Your task to perform on an android device: delete location history Image 0: 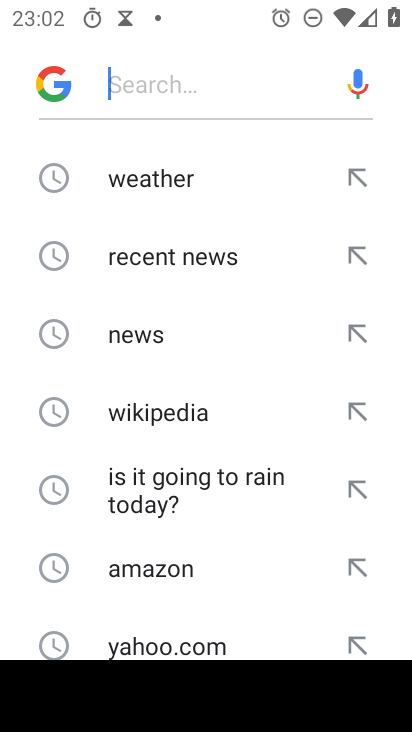
Step 0: press home button
Your task to perform on an android device: delete location history Image 1: 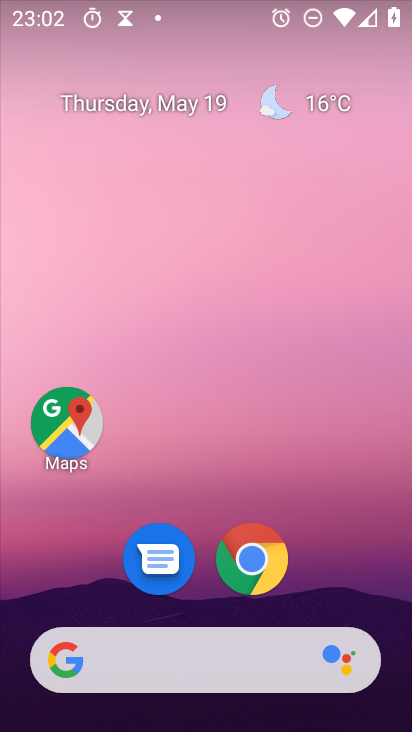
Step 1: drag from (233, 714) to (217, 155)
Your task to perform on an android device: delete location history Image 2: 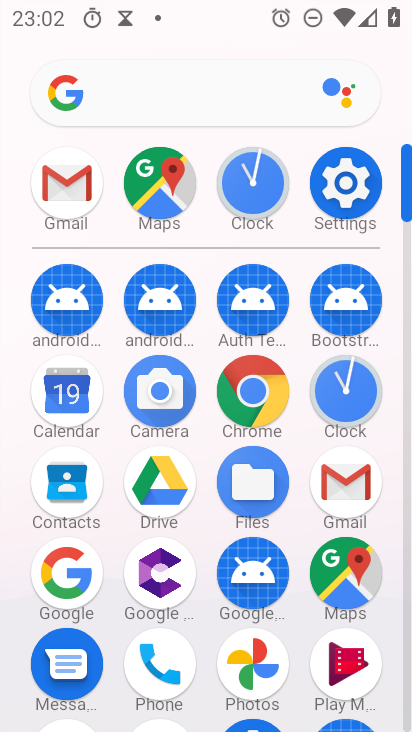
Step 2: click (334, 585)
Your task to perform on an android device: delete location history Image 3: 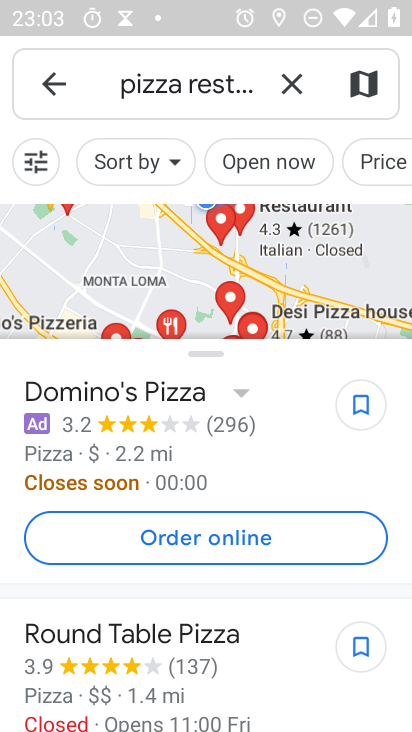
Step 3: click (48, 80)
Your task to perform on an android device: delete location history Image 4: 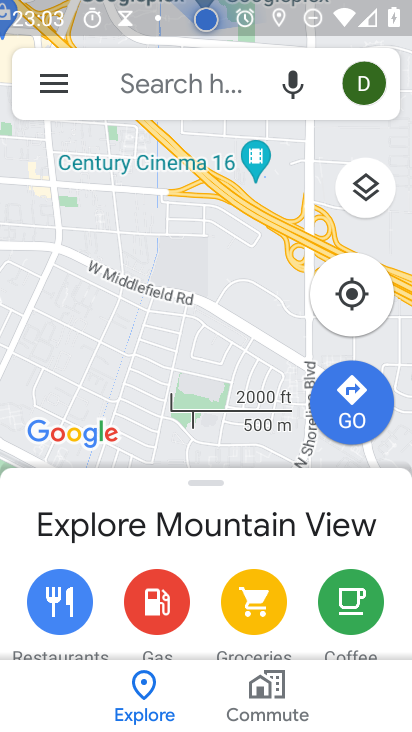
Step 4: click (56, 78)
Your task to perform on an android device: delete location history Image 5: 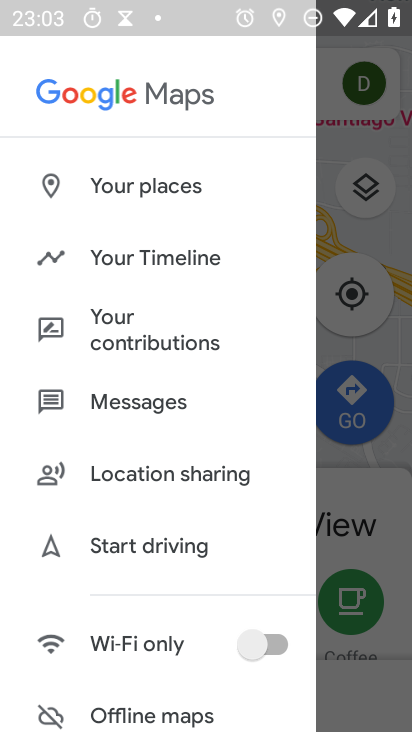
Step 5: drag from (135, 673) to (140, 575)
Your task to perform on an android device: delete location history Image 6: 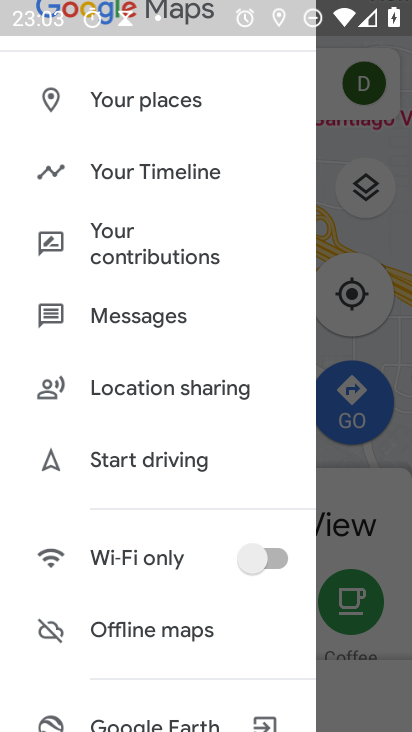
Step 6: click (130, 166)
Your task to perform on an android device: delete location history Image 7: 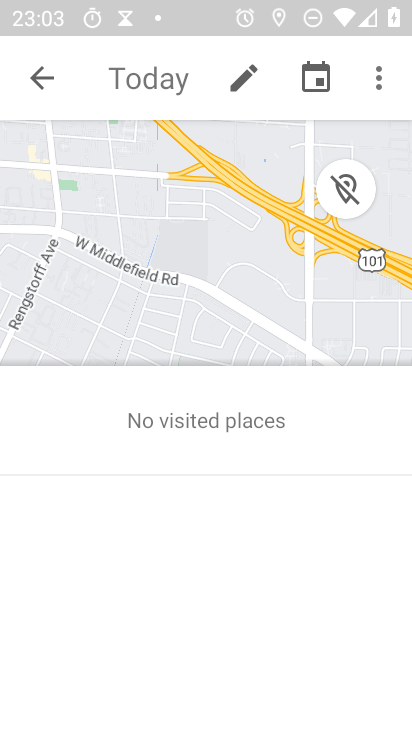
Step 7: click (380, 85)
Your task to perform on an android device: delete location history Image 8: 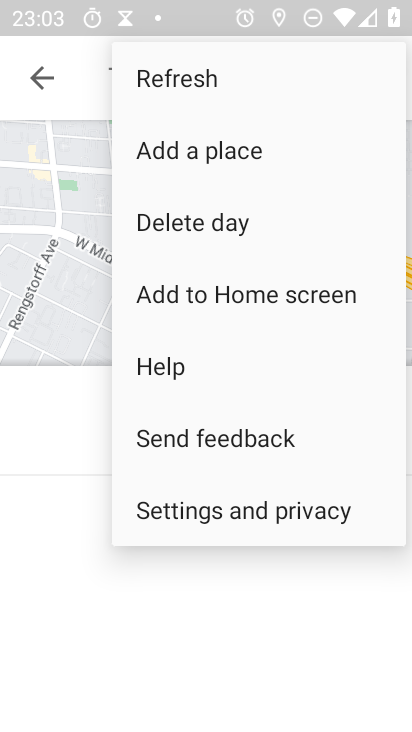
Step 8: click (201, 506)
Your task to perform on an android device: delete location history Image 9: 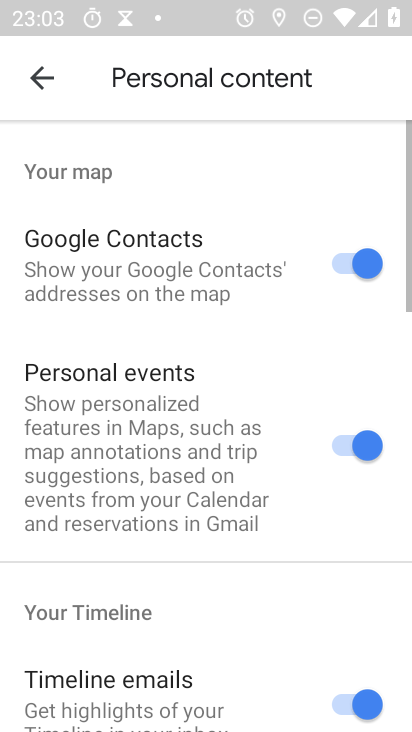
Step 9: drag from (168, 665) to (157, 285)
Your task to perform on an android device: delete location history Image 10: 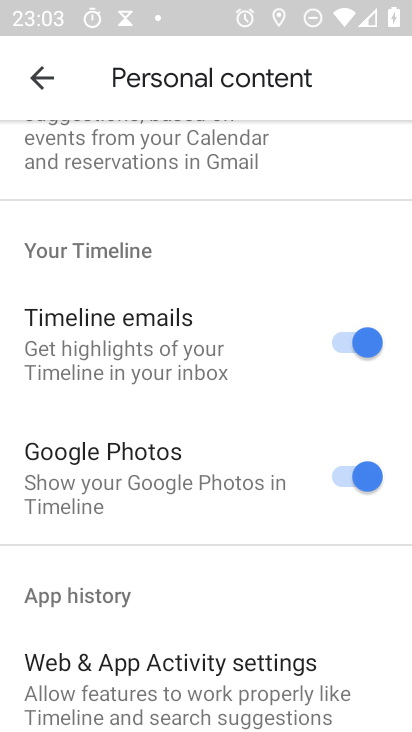
Step 10: drag from (164, 701) to (162, 293)
Your task to perform on an android device: delete location history Image 11: 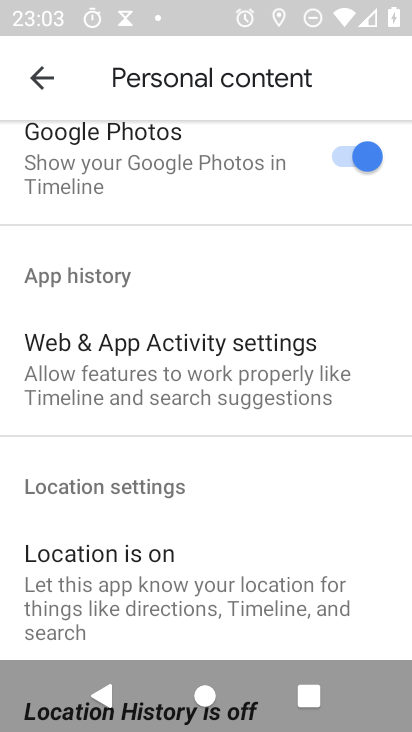
Step 11: drag from (228, 650) to (196, 229)
Your task to perform on an android device: delete location history Image 12: 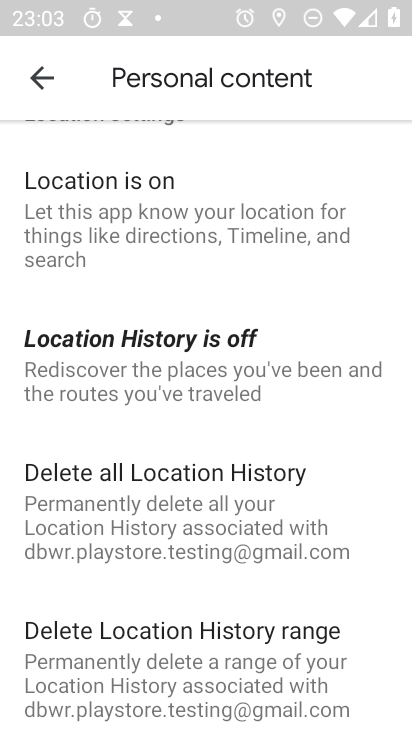
Step 12: click (181, 502)
Your task to perform on an android device: delete location history Image 13: 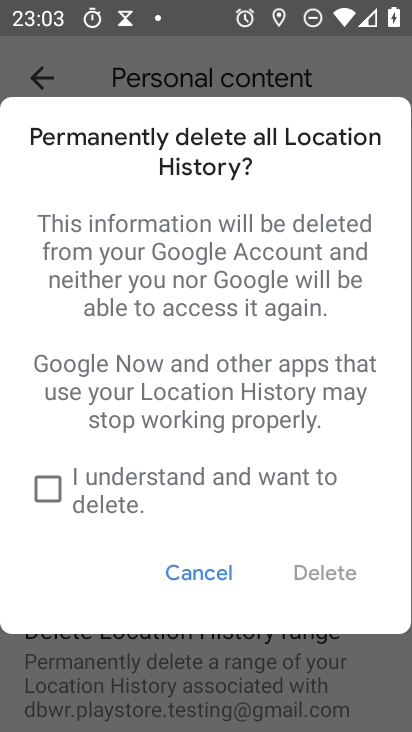
Step 13: click (45, 484)
Your task to perform on an android device: delete location history Image 14: 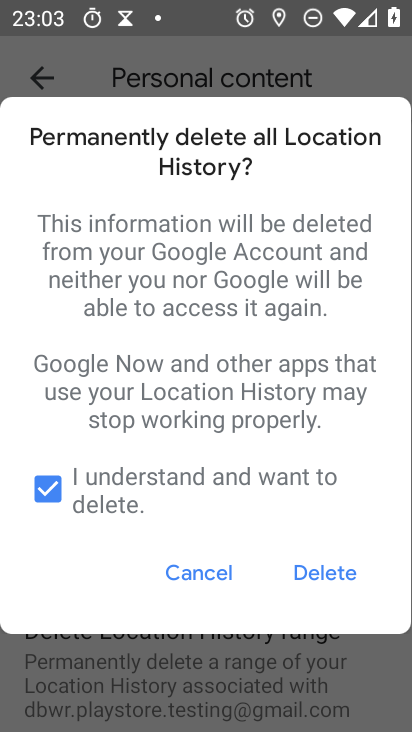
Step 14: click (320, 568)
Your task to perform on an android device: delete location history Image 15: 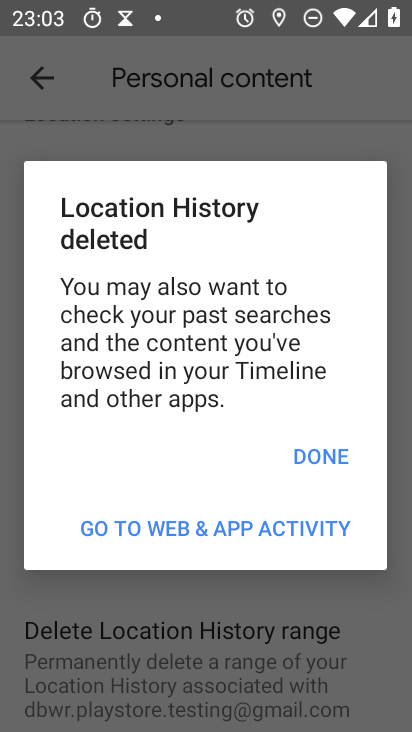
Step 15: click (312, 452)
Your task to perform on an android device: delete location history Image 16: 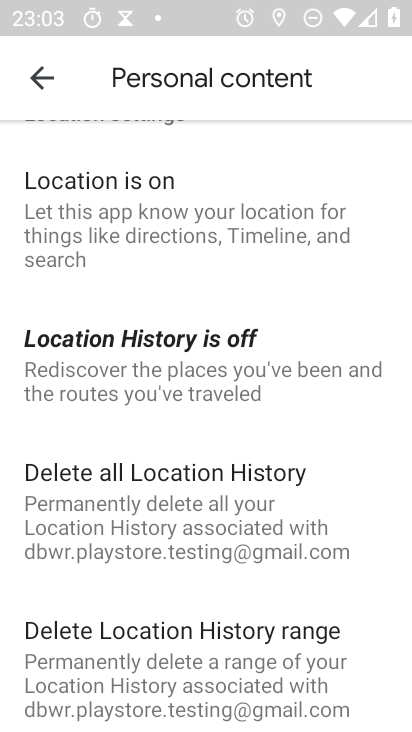
Step 16: task complete